Your task to perform on an android device: What's the weather going to be this weekend? Image 0: 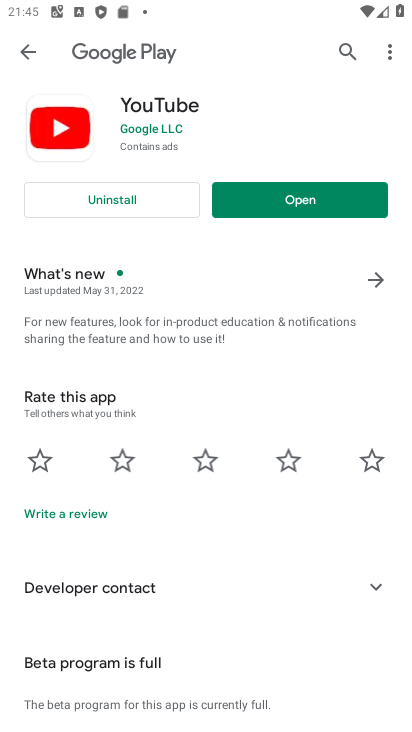
Step 0: press home button
Your task to perform on an android device: What's the weather going to be this weekend? Image 1: 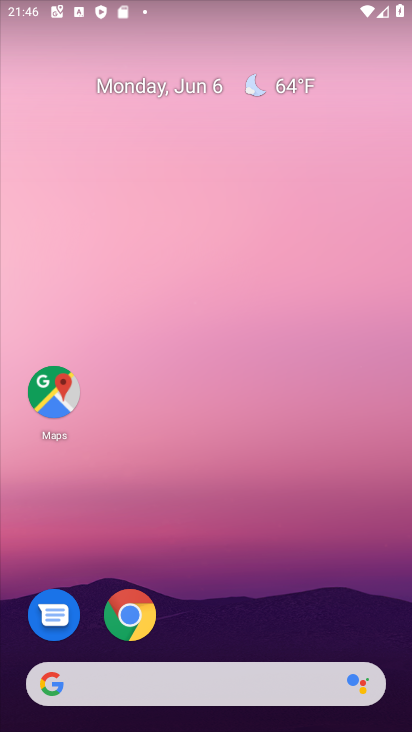
Step 1: drag from (2, 268) to (410, 338)
Your task to perform on an android device: What's the weather going to be this weekend? Image 2: 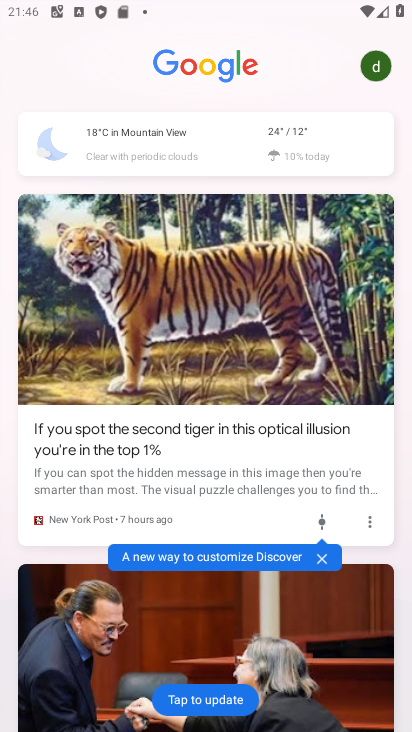
Step 2: click (301, 131)
Your task to perform on an android device: What's the weather going to be this weekend? Image 3: 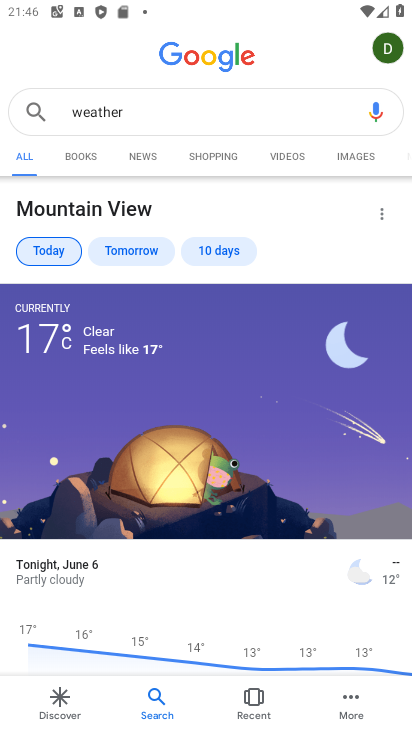
Step 3: click (217, 245)
Your task to perform on an android device: What's the weather going to be this weekend? Image 4: 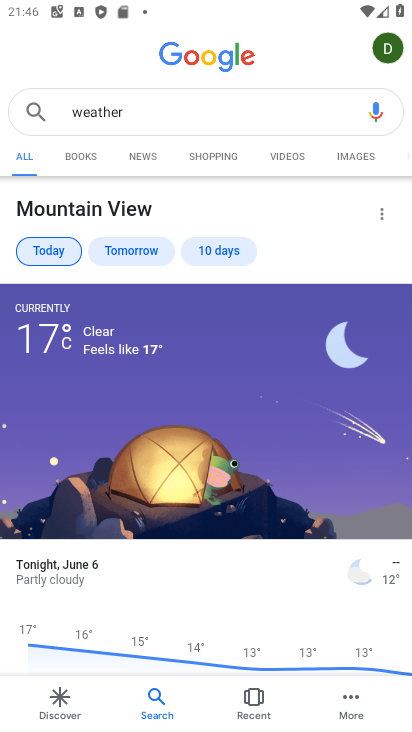
Step 4: click (215, 242)
Your task to perform on an android device: What's the weather going to be this weekend? Image 5: 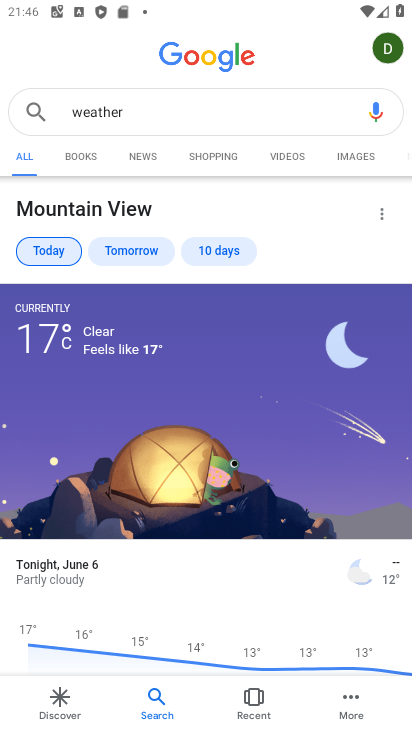
Step 5: click (217, 242)
Your task to perform on an android device: What's the weather going to be this weekend? Image 6: 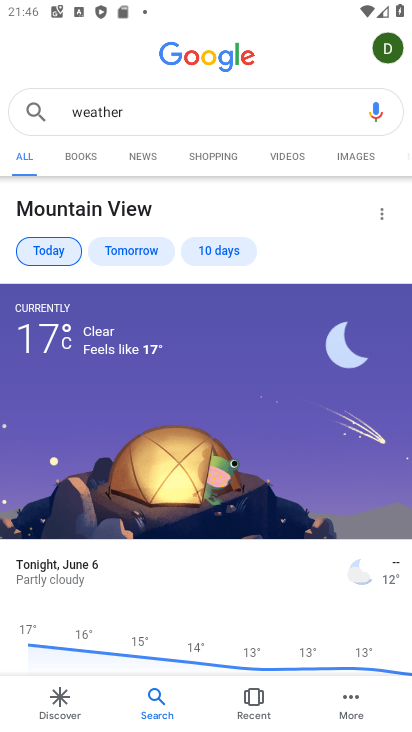
Step 6: click (217, 248)
Your task to perform on an android device: What's the weather going to be this weekend? Image 7: 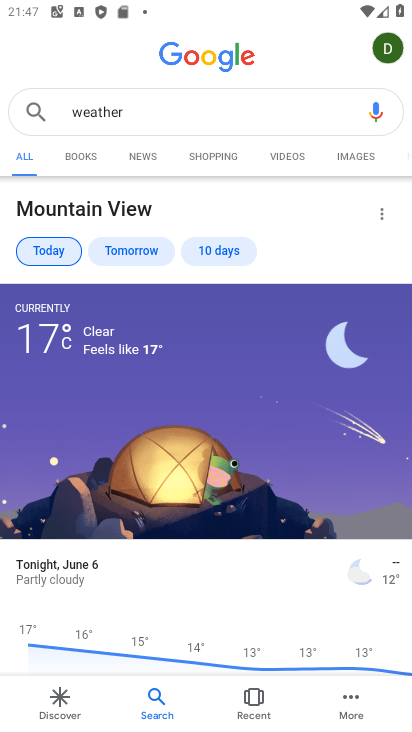
Step 7: click (234, 255)
Your task to perform on an android device: What's the weather going to be this weekend? Image 8: 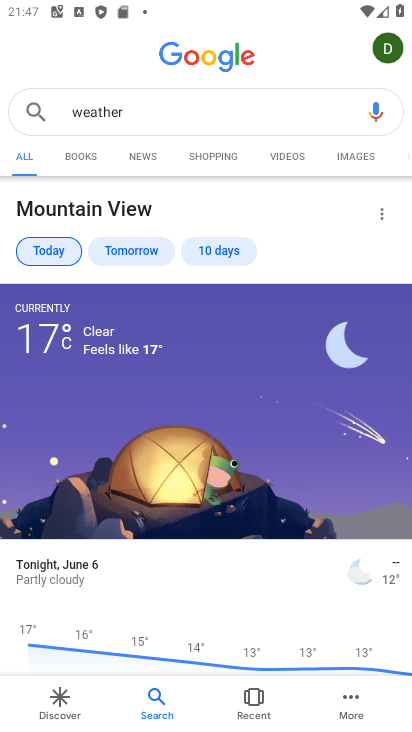
Step 8: click (208, 240)
Your task to perform on an android device: What's the weather going to be this weekend? Image 9: 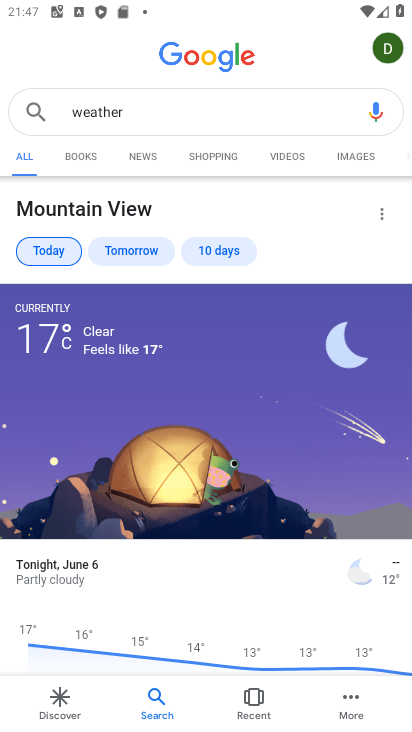
Step 9: click (208, 240)
Your task to perform on an android device: What's the weather going to be this weekend? Image 10: 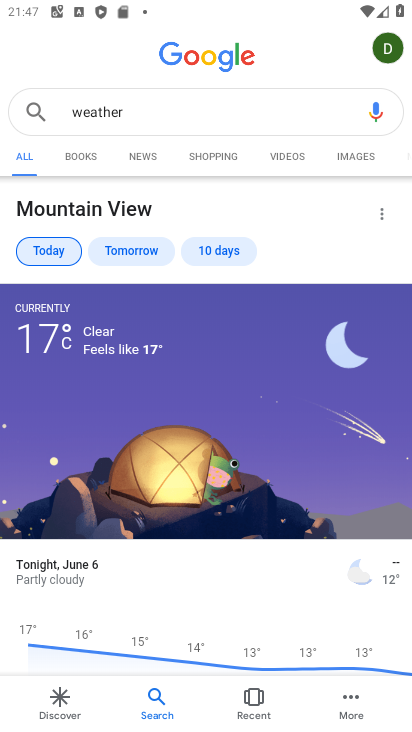
Step 10: click (208, 248)
Your task to perform on an android device: What's the weather going to be this weekend? Image 11: 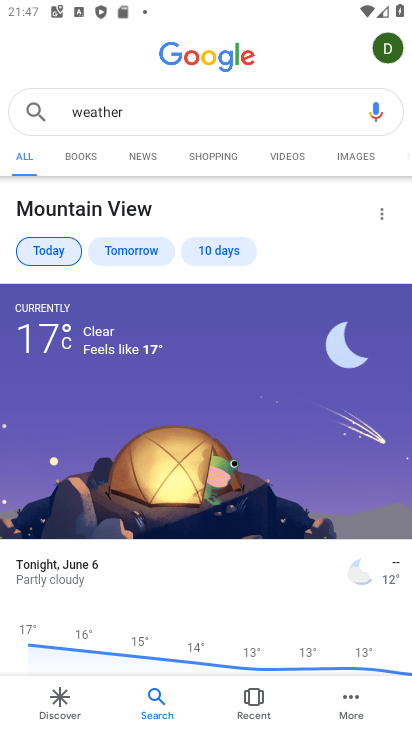
Step 11: task complete